Your task to perform on an android device: Open ESPN.com Image 0: 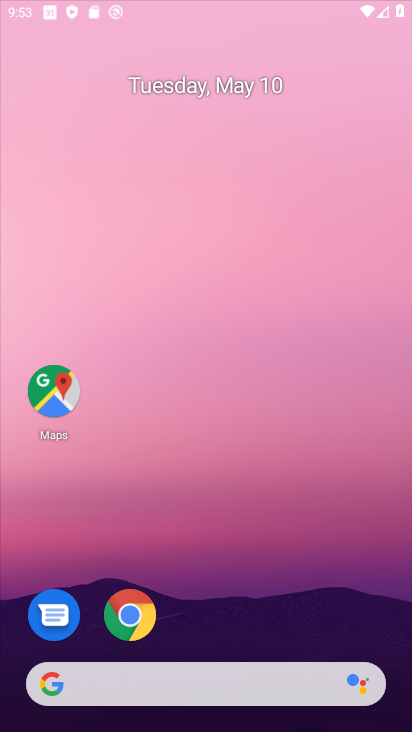
Step 0: press home button
Your task to perform on an android device: Open ESPN.com Image 1: 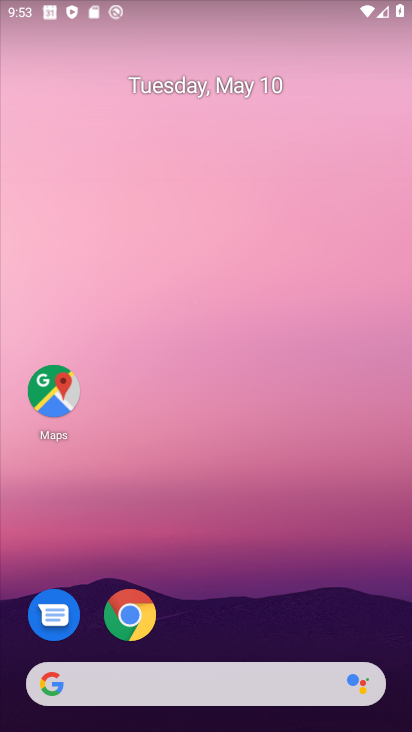
Step 1: drag from (210, 421) to (210, 108)
Your task to perform on an android device: Open ESPN.com Image 2: 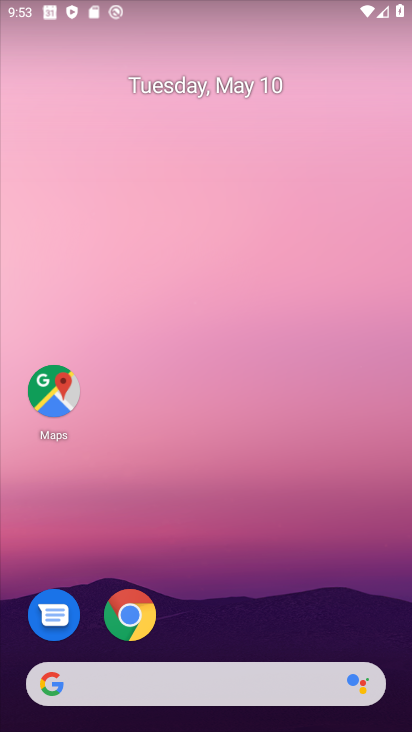
Step 2: click (134, 609)
Your task to perform on an android device: Open ESPN.com Image 3: 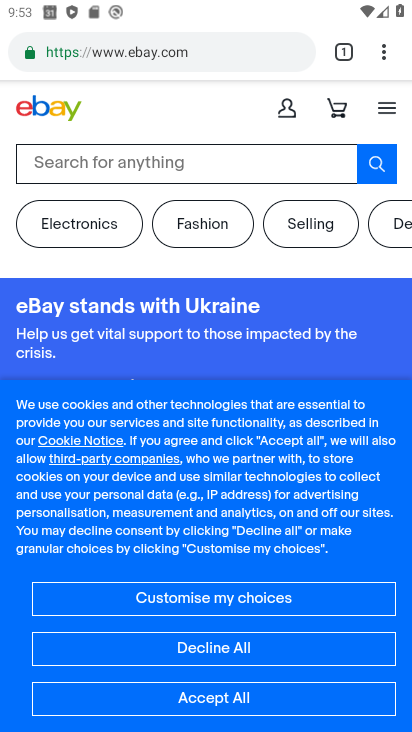
Step 3: click (339, 49)
Your task to perform on an android device: Open ESPN.com Image 4: 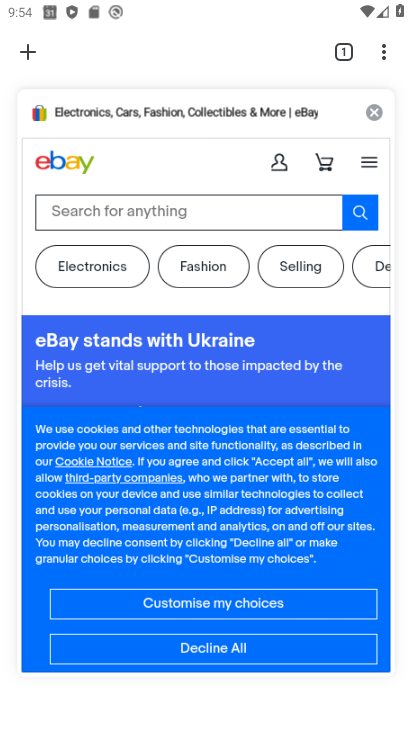
Step 4: click (376, 108)
Your task to perform on an android device: Open ESPN.com Image 5: 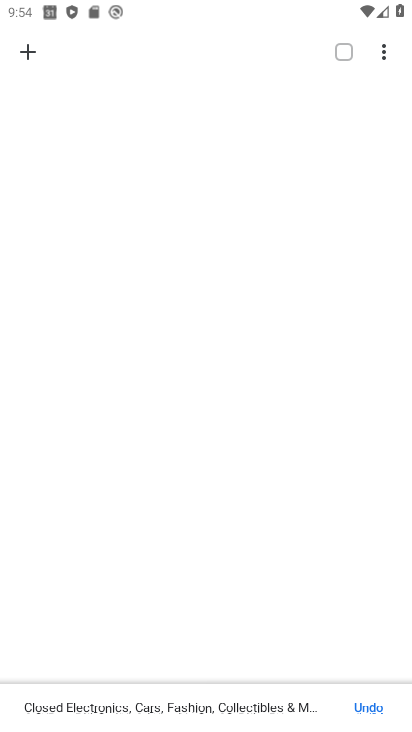
Step 5: click (31, 53)
Your task to perform on an android device: Open ESPN.com Image 6: 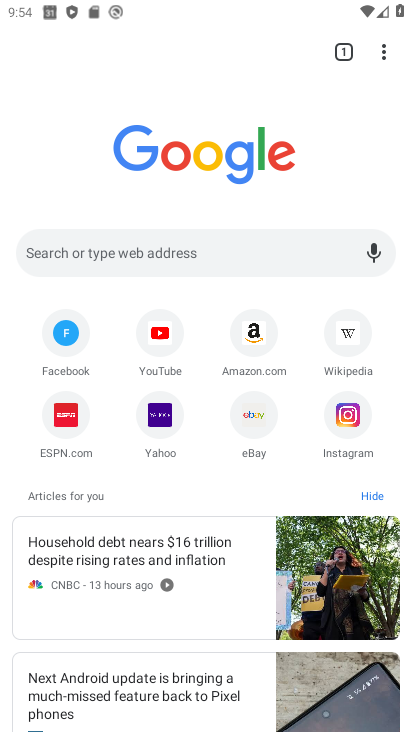
Step 6: click (62, 410)
Your task to perform on an android device: Open ESPN.com Image 7: 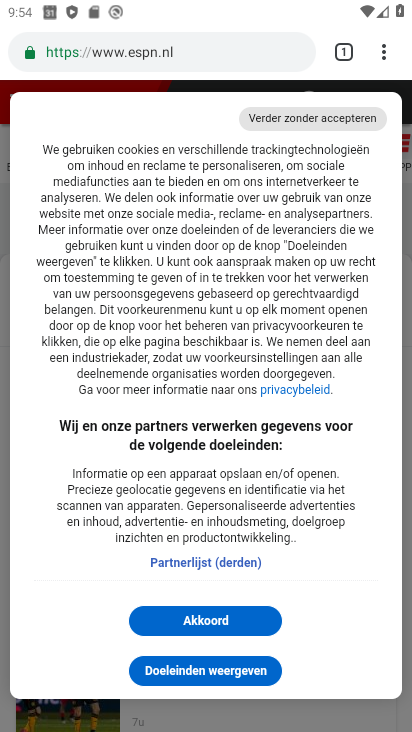
Step 7: click (210, 615)
Your task to perform on an android device: Open ESPN.com Image 8: 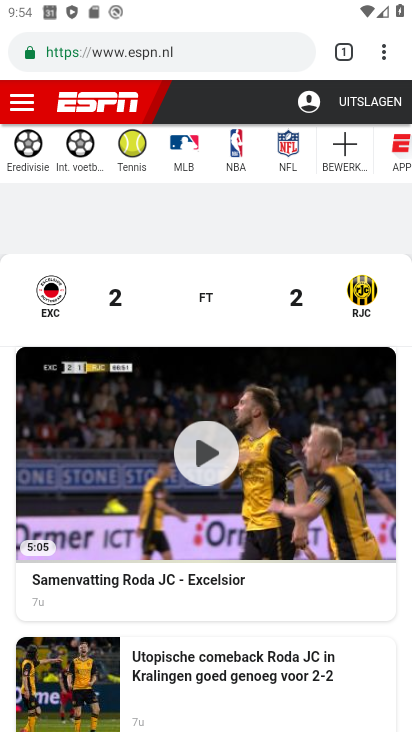
Step 8: task complete